Your task to perform on an android device: Show me popular videos on Youtube Image 0: 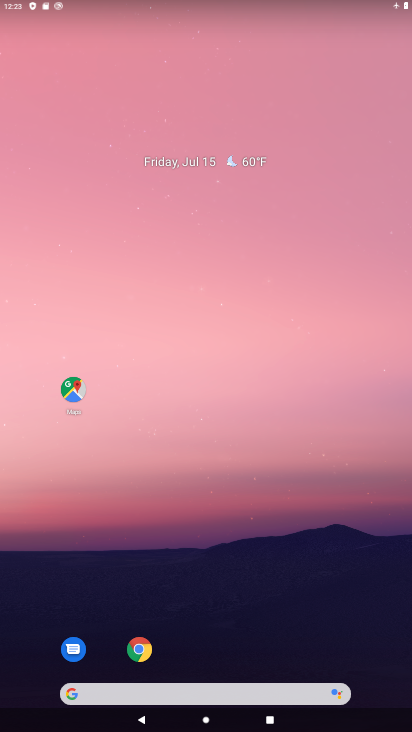
Step 0: drag from (249, 598) to (222, 322)
Your task to perform on an android device: Show me popular videos on Youtube Image 1: 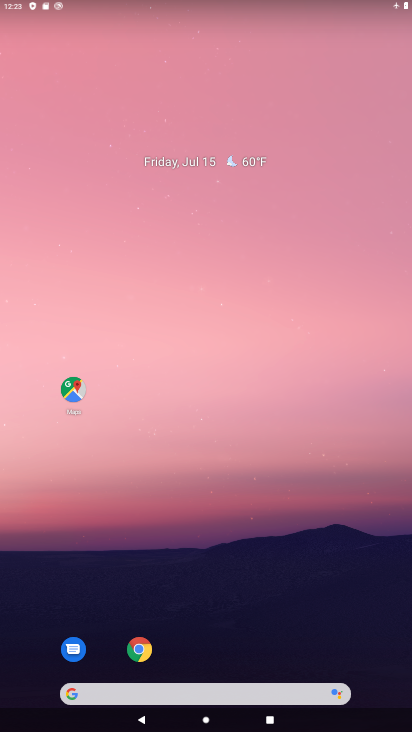
Step 1: drag from (342, 655) to (298, 376)
Your task to perform on an android device: Show me popular videos on Youtube Image 2: 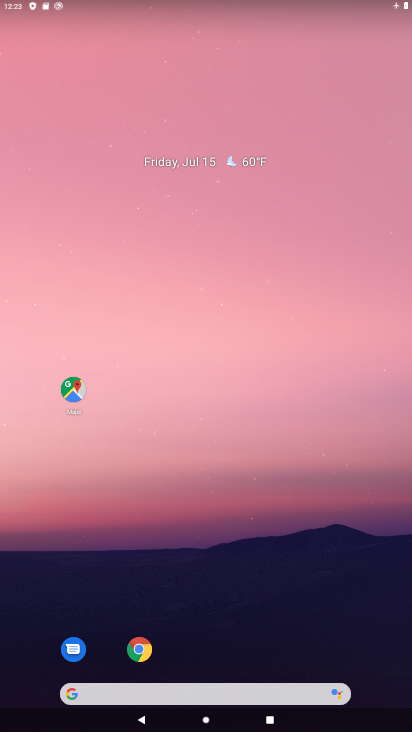
Step 2: drag from (351, 607) to (296, 82)
Your task to perform on an android device: Show me popular videos on Youtube Image 3: 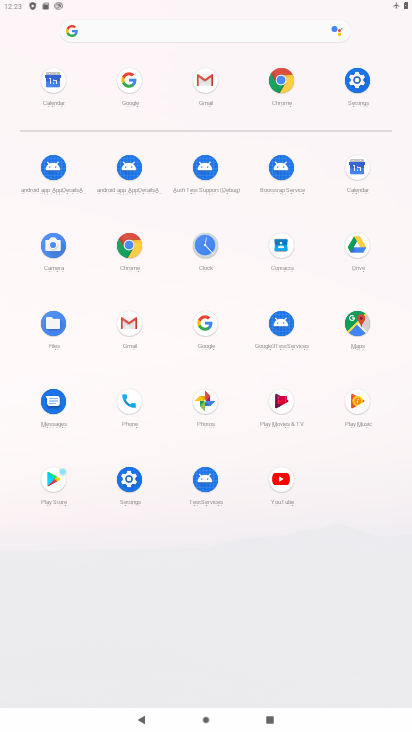
Step 3: click (265, 476)
Your task to perform on an android device: Show me popular videos on Youtube Image 4: 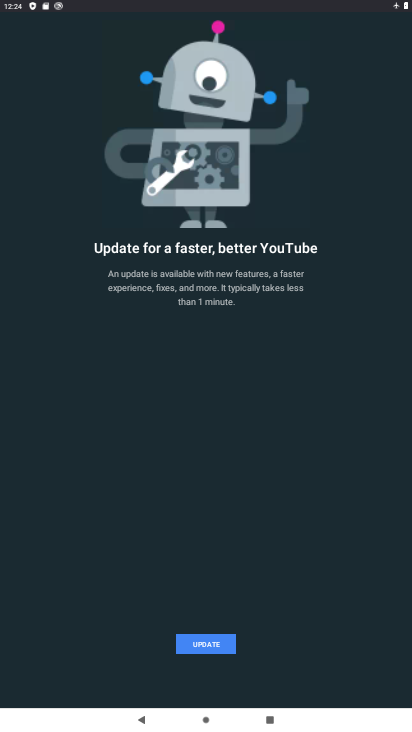
Step 4: task complete